Your task to perform on an android device: open chrome and create a bookmark for the current page Image 0: 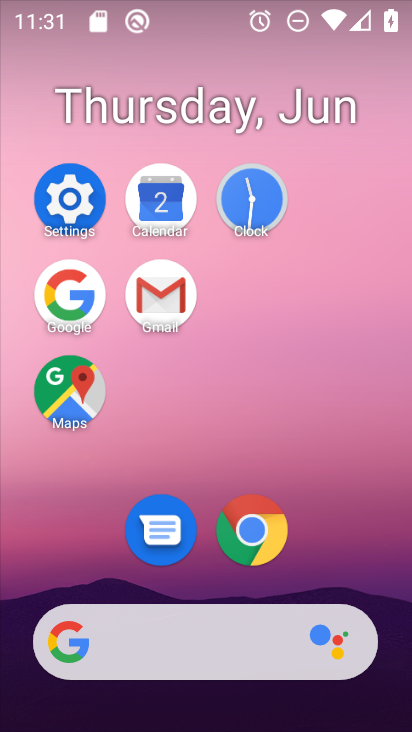
Step 0: click (256, 520)
Your task to perform on an android device: open chrome and create a bookmark for the current page Image 1: 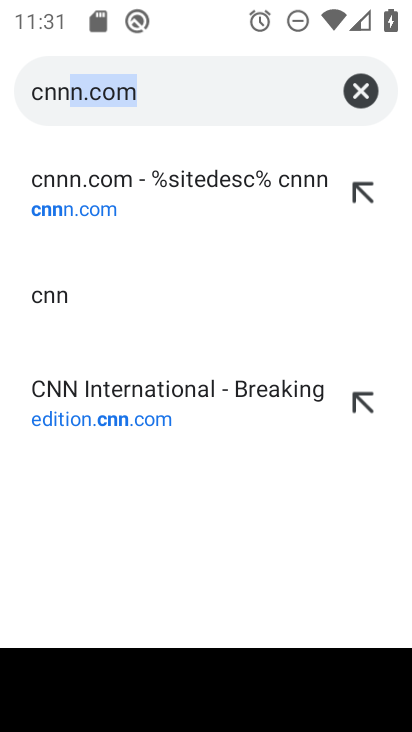
Step 1: click (365, 71)
Your task to perform on an android device: open chrome and create a bookmark for the current page Image 2: 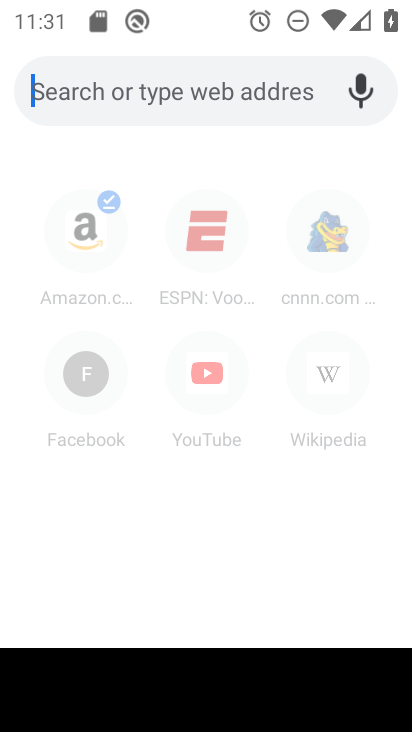
Step 2: press back button
Your task to perform on an android device: open chrome and create a bookmark for the current page Image 3: 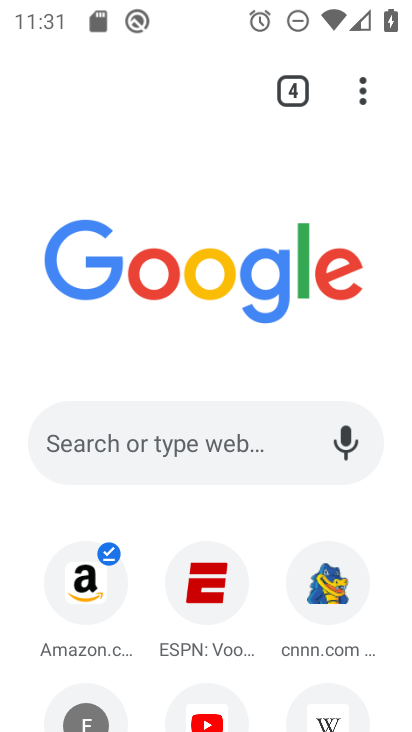
Step 3: click (349, 77)
Your task to perform on an android device: open chrome and create a bookmark for the current page Image 4: 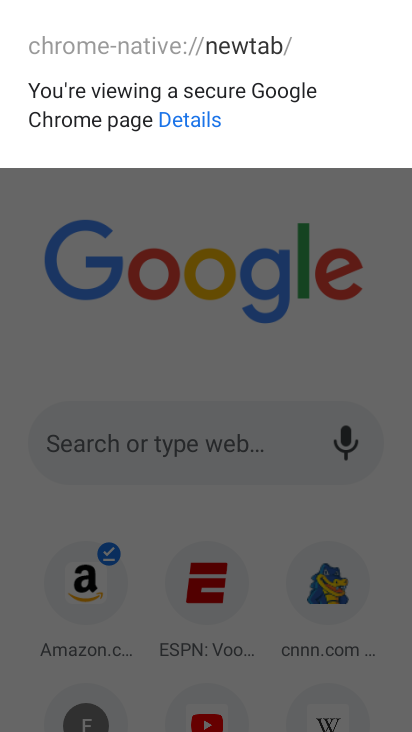
Step 4: click (371, 218)
Your task to perform on an android device: open chrome and create a bookmark for the current page Image 5: 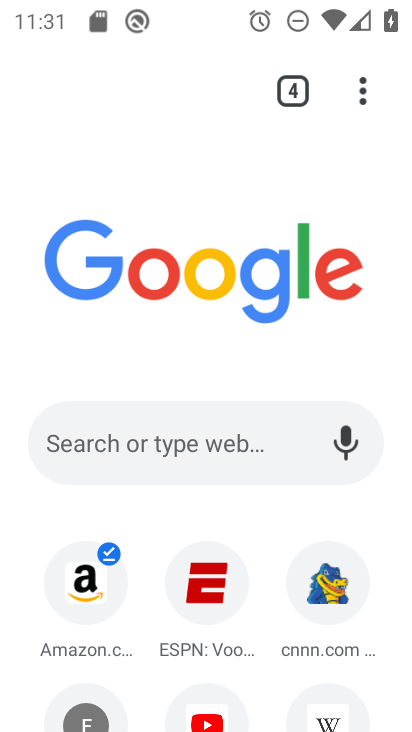
Step 5: click (364, 85)
Your task to perform on an android device: open chrome and create a bookmark for the current page Image 6: 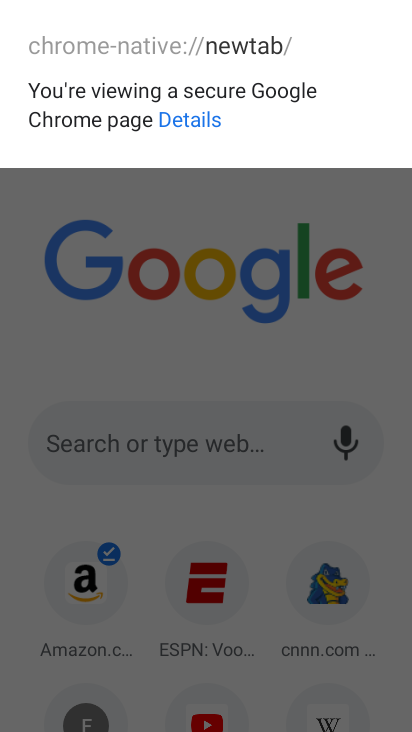
Step 6: click (388, 212)
Your task to perform on an android device: open chrome and create a bookmark for the current page Image 7: 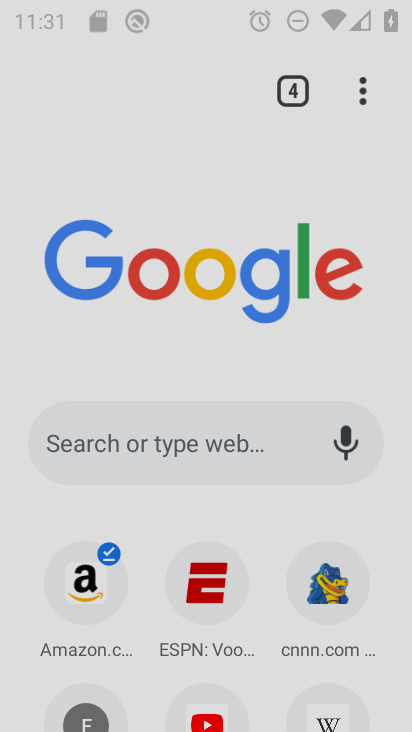
Step 7: click (371, 80)
Your task to perform on an android device: open chrome and create a bookmark for the current page Image 8: 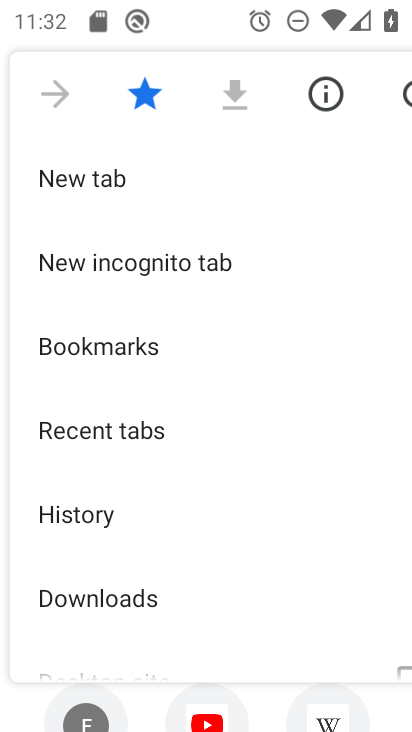
Step 8: task complete